Your task to perform on an android device: change the clock display to analog Image 0: 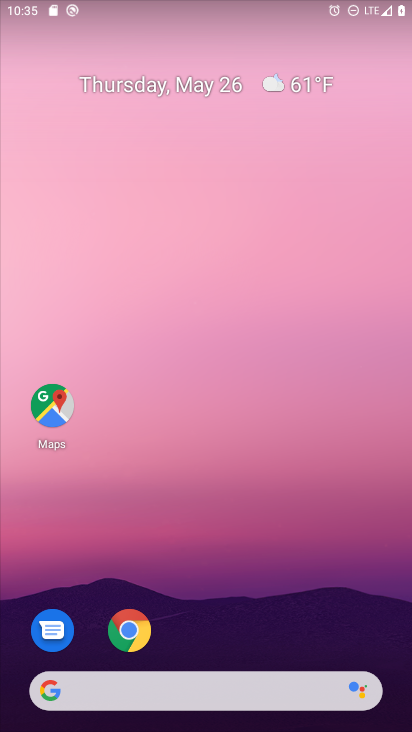
Step 0: drag from (217, 662) to (200, 36)
Your task to perform on an android device: change the clock display to analog Image 1: 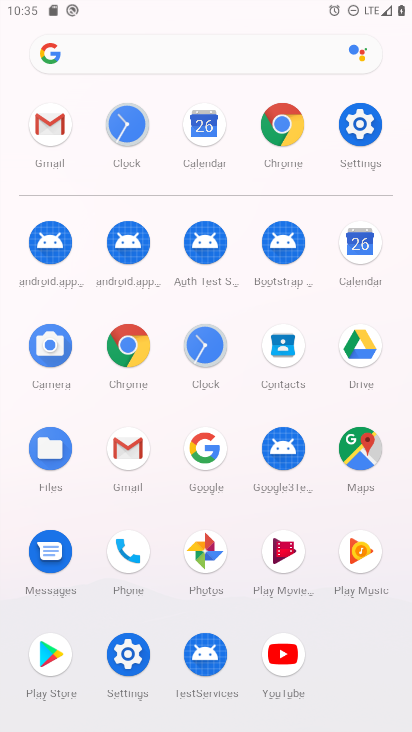
Step 1: click (198, 344)
Your task to perform on an android device: change the clock display to analog Image 2: 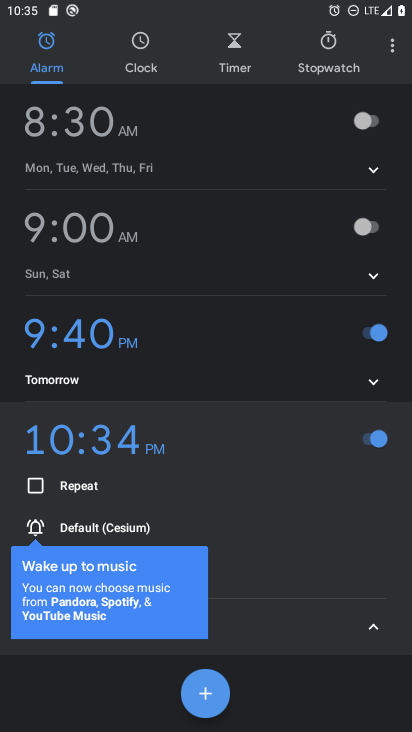
Step 2: click (401, 50)
Your task to perform on an android device: change the clock display to analog Image 3: 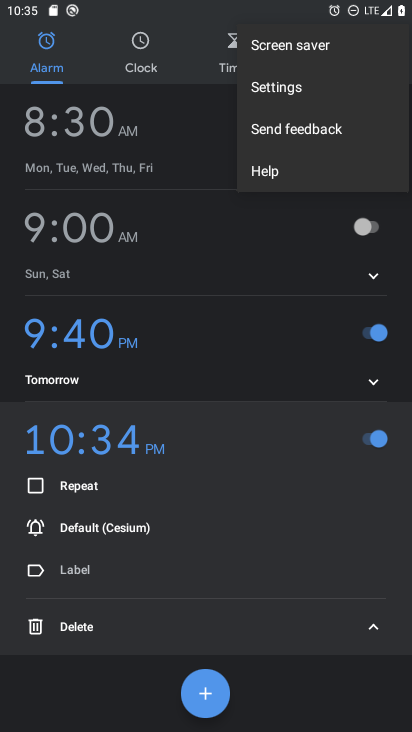
Step 3: click (280, 88)
Your task to perform on an android device: change the clock display to analog Image 4: 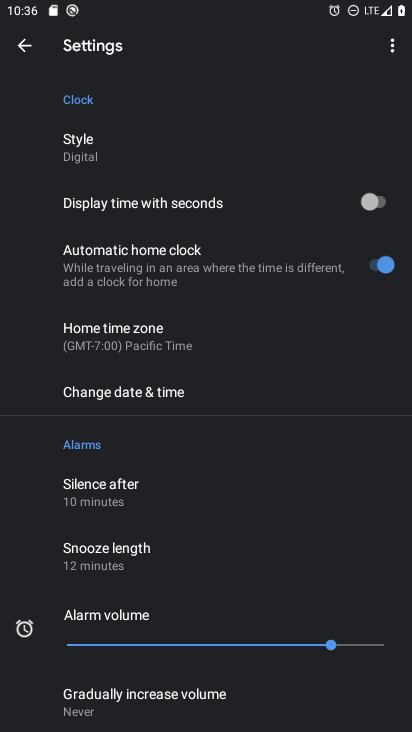
Step 4: click (121, 145)
Your task to perform on an android device: change the clock display to analog Image 5: 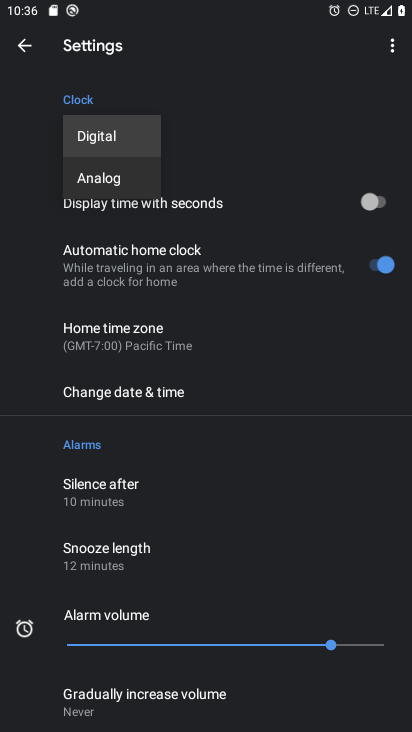
Step 5: click (133, 173)
Your task to perform on an android device: change the clock display to analog Image 6: 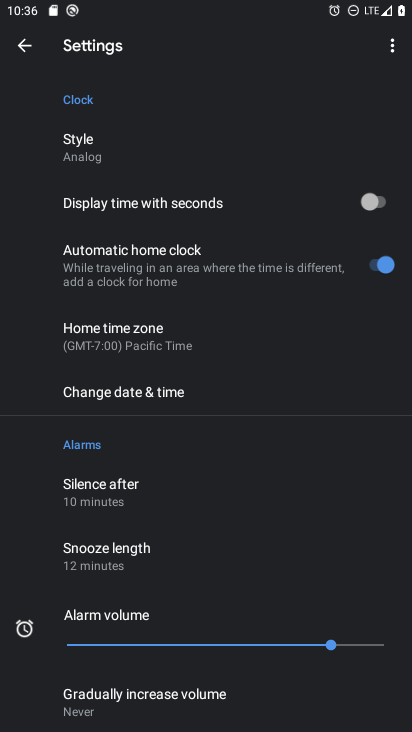
Step 6: task complete